Your task to perform on an android device: turn notification dots on Image 0: 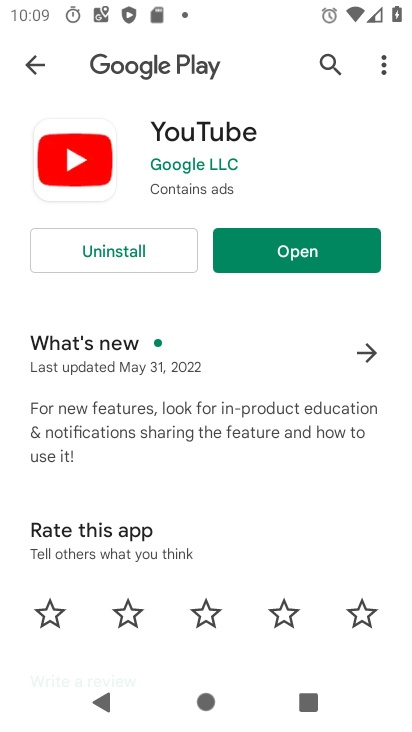
Step 0: press home button
Your task to perform on an android device: turn notification dots on Image 1: 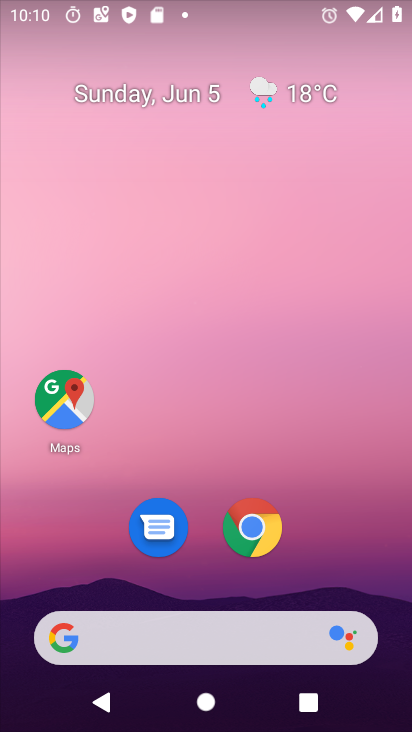
Step 1: drag from (348, 552) to (322, 56)
Your task to perform on an android device: turn notification dots on Image 2: 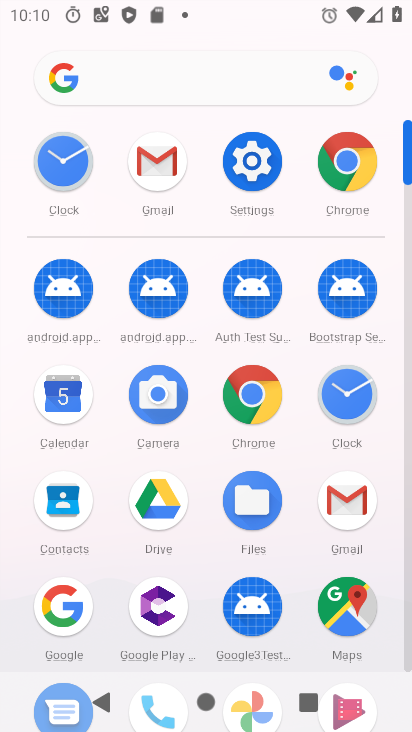
Step 2: click (261, 160)
Your task to perform on an android device: turn notification dots on Image 3: 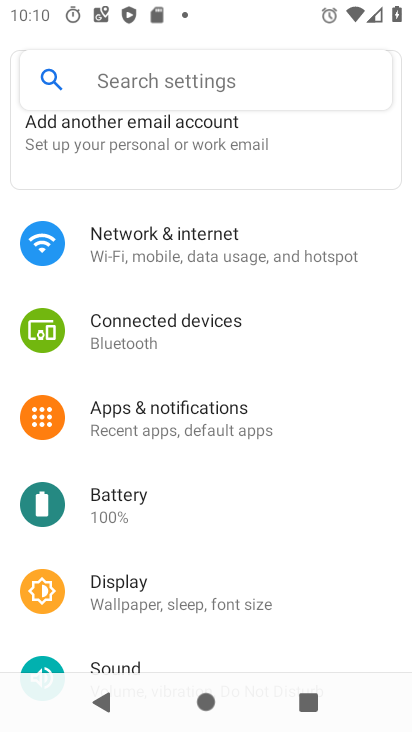
Step 3: click (192, 432)
Your task to perform on an android device: turn notification dots on Image 4: 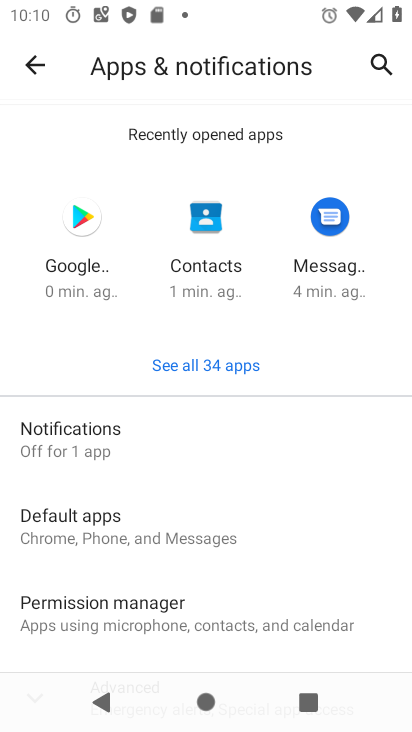
Step 4: drag from (162, 537) to (202, 49)
Your task to perform on an android device: turn notification dots on Image 5: 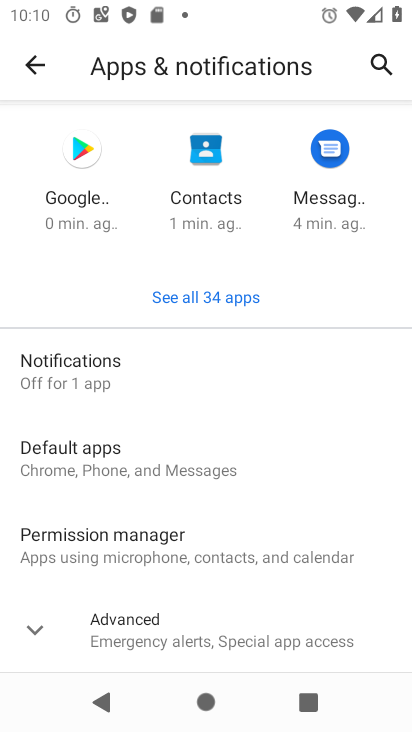
Step 5: click (132, 612)
Your task to perform on an android device: turn notification dots on Image 6: 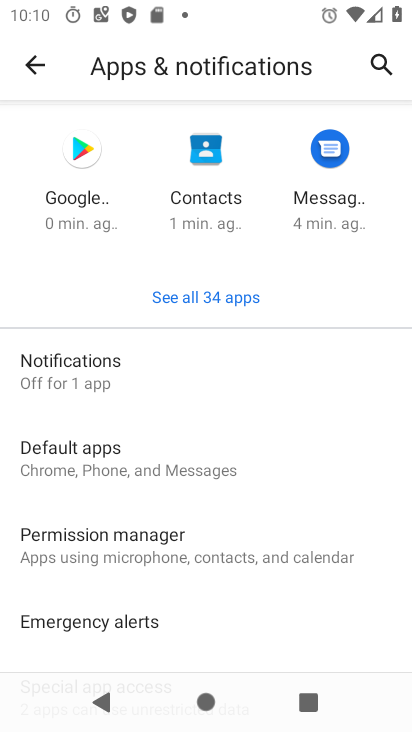
Step 6: drag from (157, 588) to (162, 187)
Your task to perform on an android device: turn notification dots on Image 7: 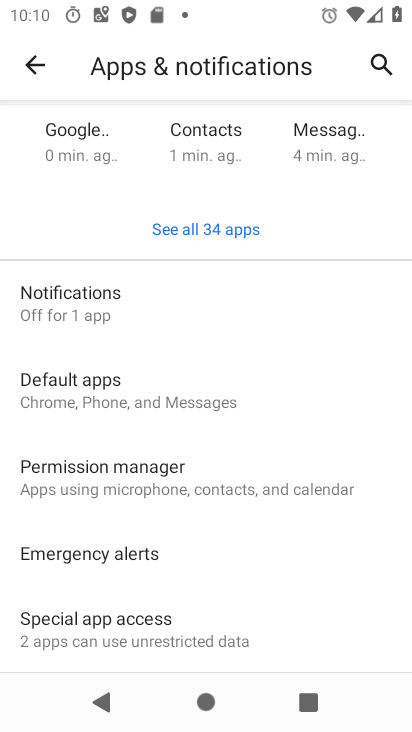
Step 7: click (94, 311)
Your task to perform on an android device: turn notification dots on Image 8: 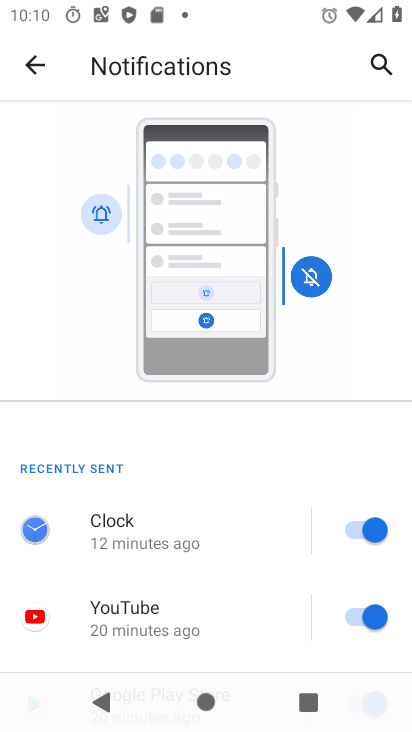
Step 8: drag from (171, 600) to (228, 66)
Your task to perform on an android device: turn notification dots on Image 9: 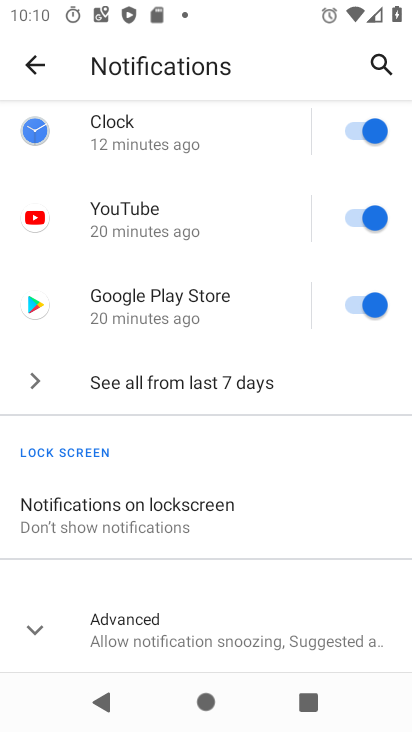
Step 9: click (152, 626)
Your task to perform on an android device: turn notification dots on Image 10: 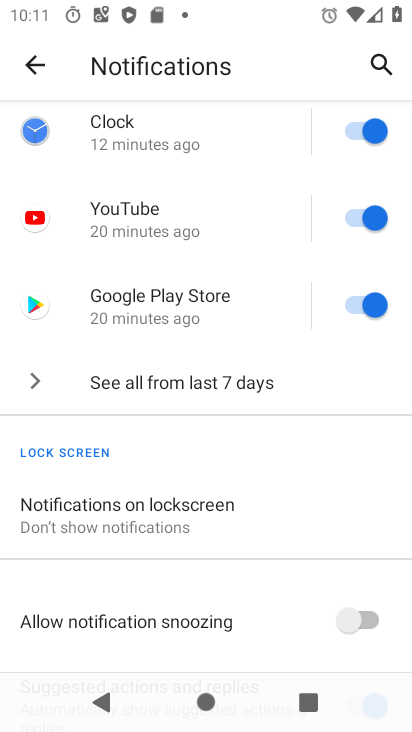
Step 10: task complete